Your task to perform on an android device: clear history in the chrome app Image 0: 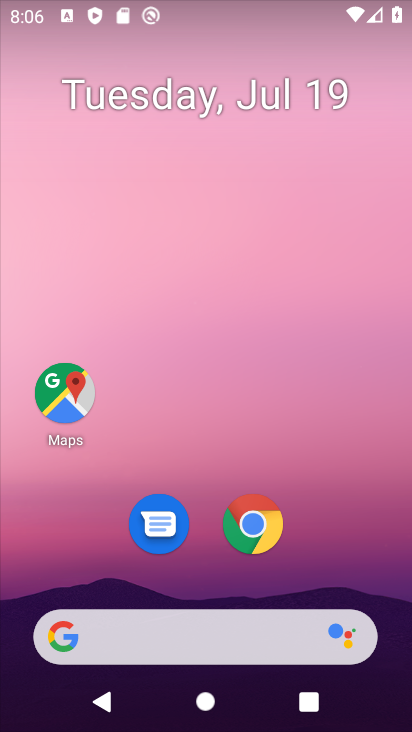
Step 0: click (253, 526)
Your task to perform on an android device: clear history in the chrome app Image 1: 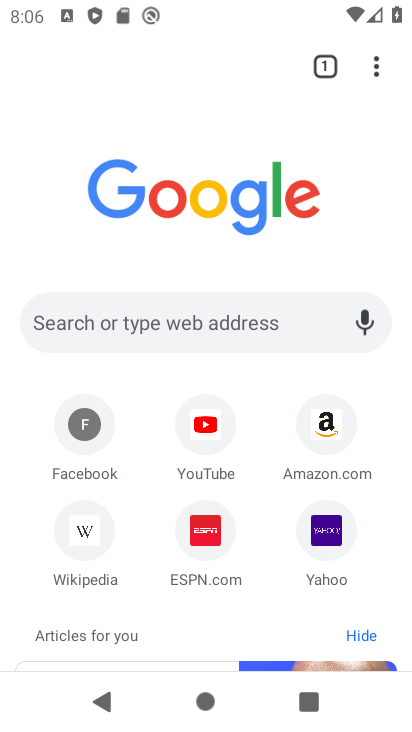
Step 1: click (376, 71)
Your task to perform on an android device: clear history in the chrome app Image 2: 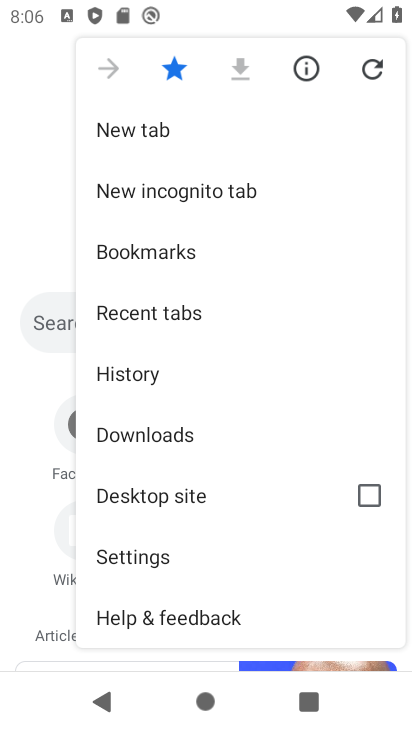
Step 2: click (146, 369)
Your task to perform on an android device: clear history in the chrome app Image 3: 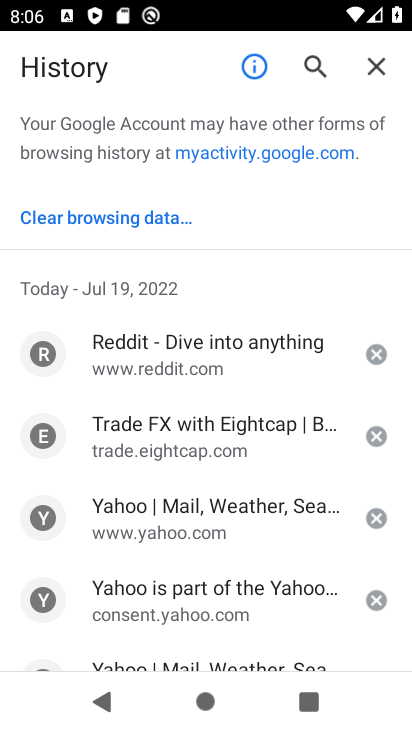
Step 3: click (135, 218)
Your task to perform on an android device: clear history in the chrome app Image 4: 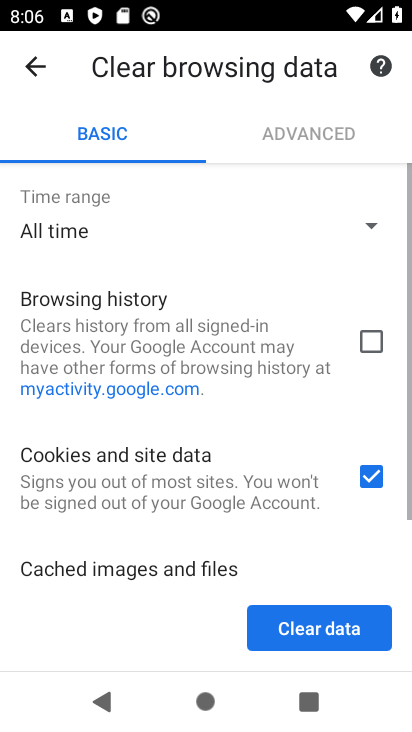
Step 4: click (369, 341)
Your task to perform on an android device: clear history in the chrome app Image 5: 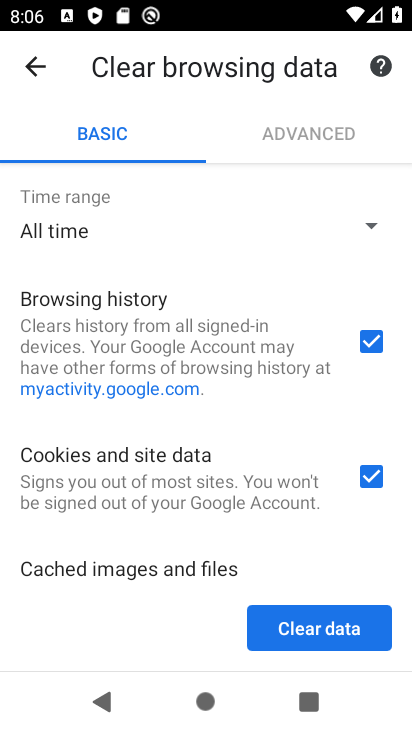
Step 5: drag from (319, 433) to (311, 242)
Your task to perform on an android device: clear history in the chrome app Image 6: 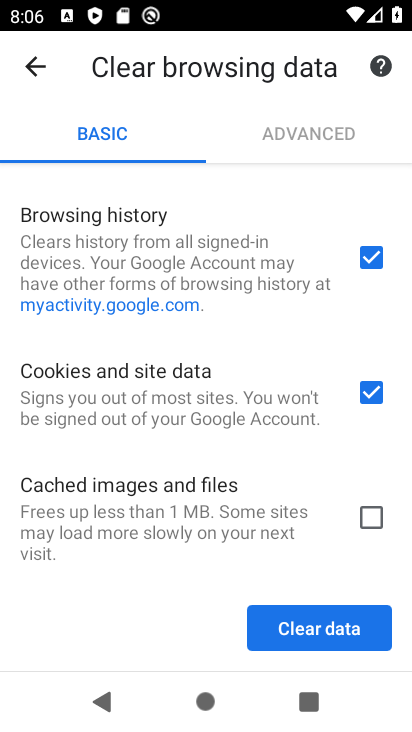
Step 6: click (370, 518)
Your task to perform on an android device: clear history in the chrome app Image 7: 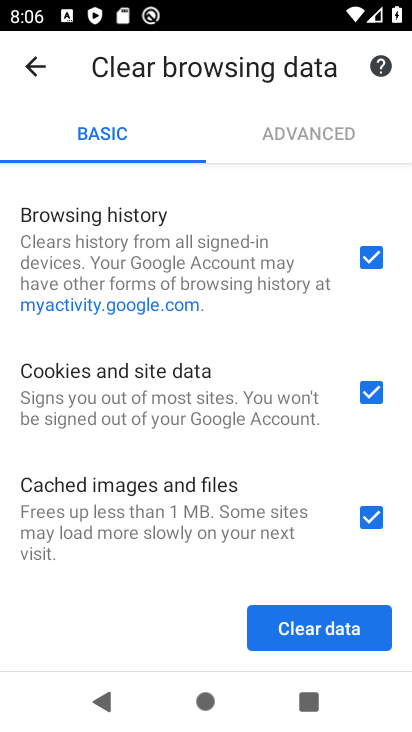
Step 7: click (362, 626)
Your task to perform on an android device: clear history in the chrome app Image 8: 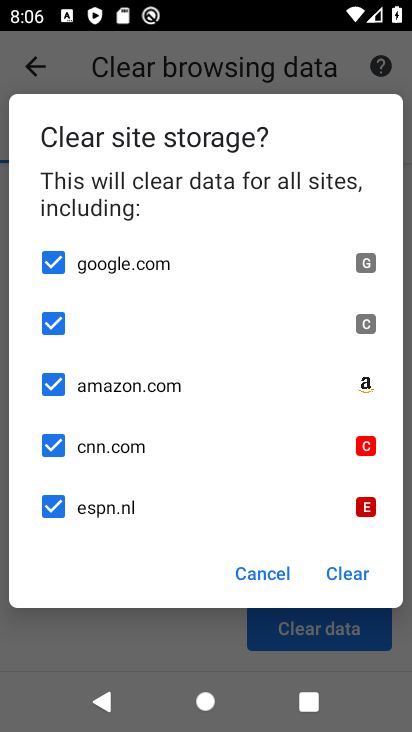
Step 8: click (350, 571)
Your task to perform on an android device: clear history in the chrome app Image 9: 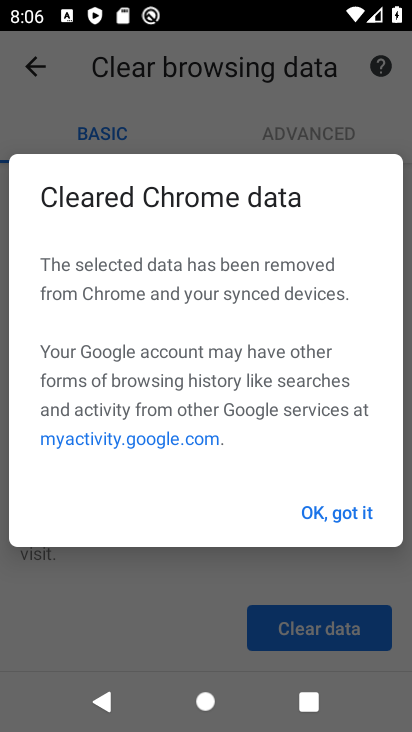
Step 9: click (347, 512)
Your task to perform on an android device: clear history in the chrome app Image 10: 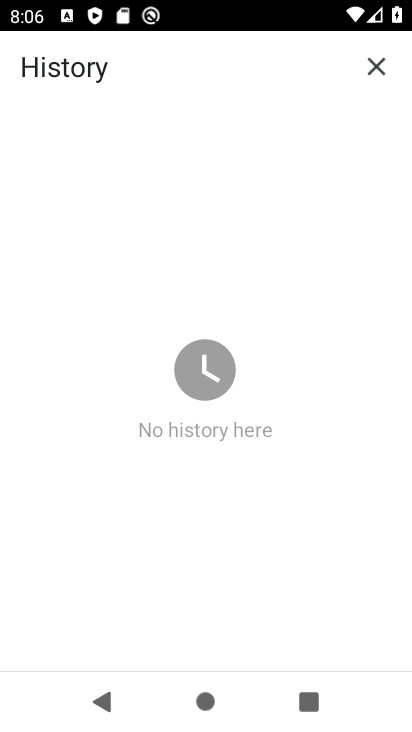
Step 10: task complete